Your task to perform on an android device: open chrome and create a bookmark for the current page Image 0: 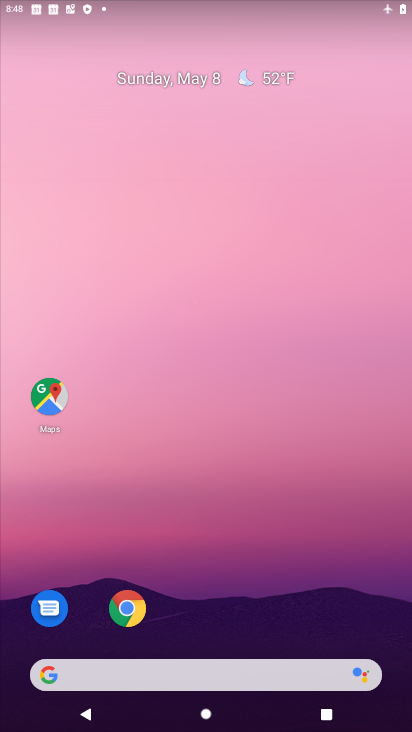
Step 0: drag from (274, 564) to (0, 101)
Your task to perform on an android device: open chrome and create a bookmark for the current page Image 1: 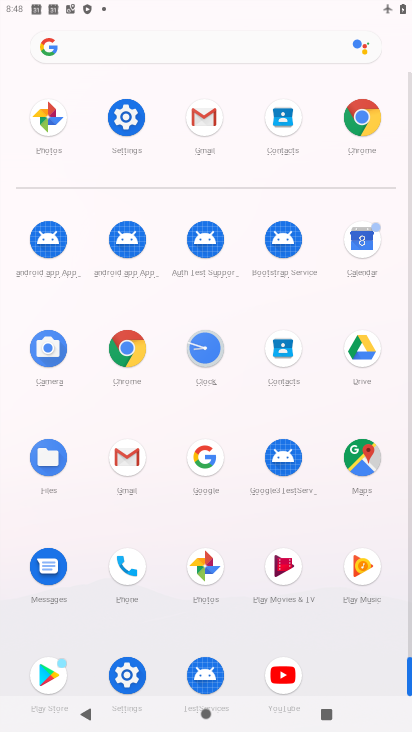
Step 1: drag from (5, 600) to (8, 258)
Your task to perform on an android device: open chrome and create a bookmark for the current page Image 2: 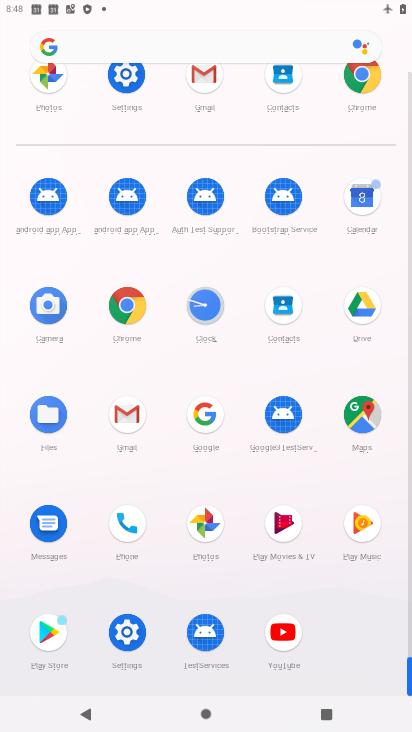
Step 2: click (129, 300)
Your task to perform on an android device: open chrome and create a bookmark for the current page Image 3: 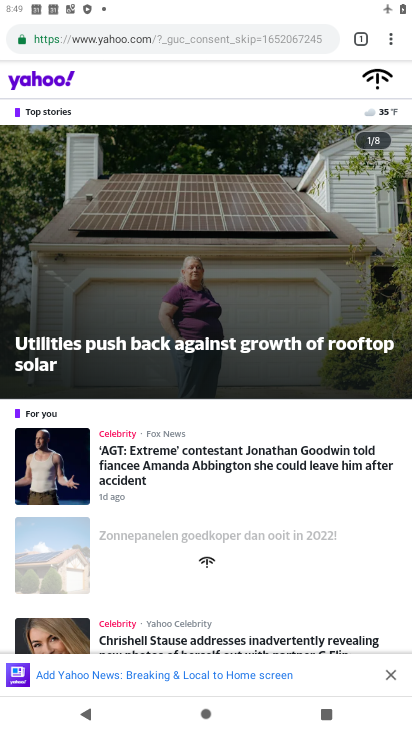
Step 3: task complete